Your task to perform on an android device: Go to ESPN.com Image 0: 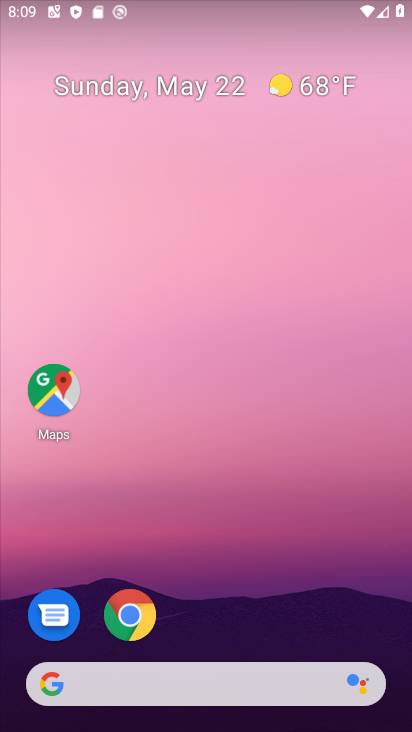
Step 0: click (139, 620)
Your task to perform on an android device: Go to ESPN.com Image 1: 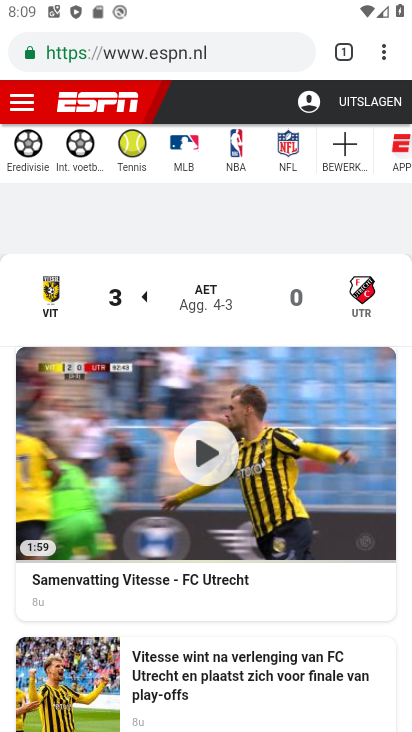
Step 1: task complete